Your task to perform on an android device: Go to sound settings Image 0: 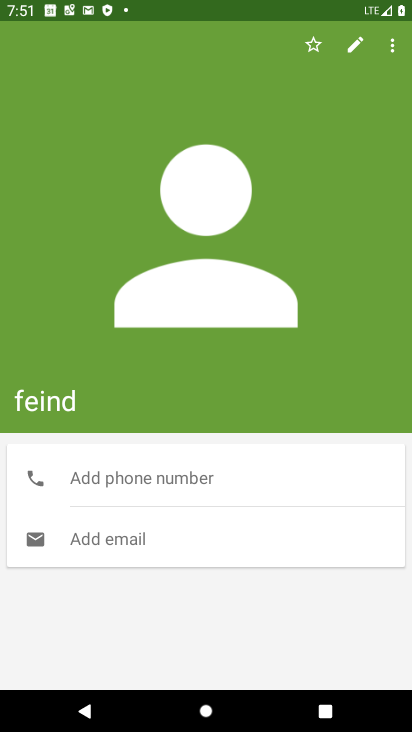
Step 0: press home button
Your task to perform on an android device: Go to sound settings Image 1: 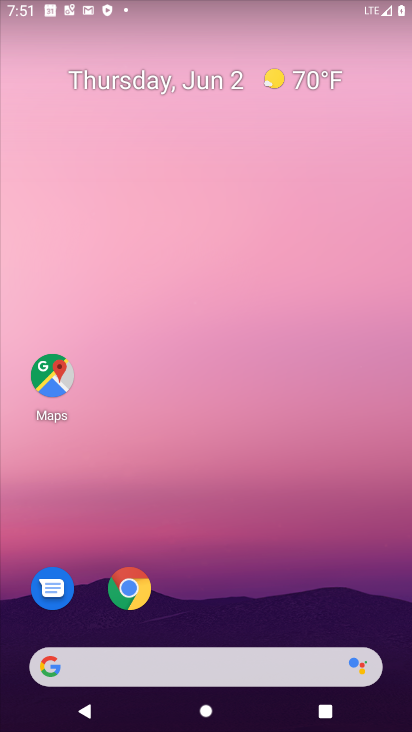
Step 1: drag from (151, 573) to (225, 0)
Your task to perform on an android device: Go to sound settings Image 2: 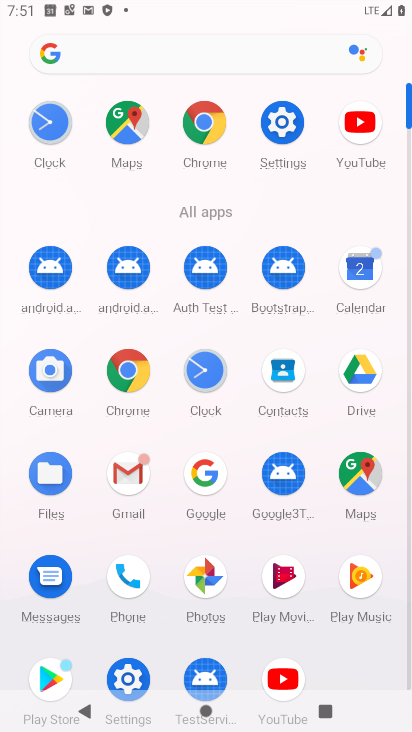
Step 2: click (283, 148)
Your task to perform on an android device: Go to sound settings Image 3: 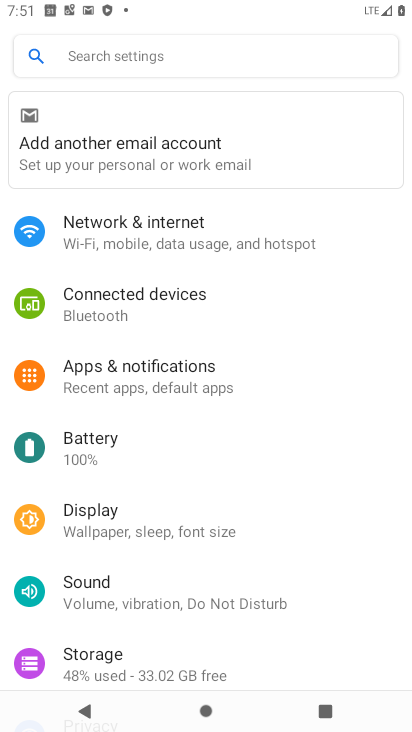
Step 3: click (128, 601)
Your task to perform on an android device: Go to sound settings Image 4: 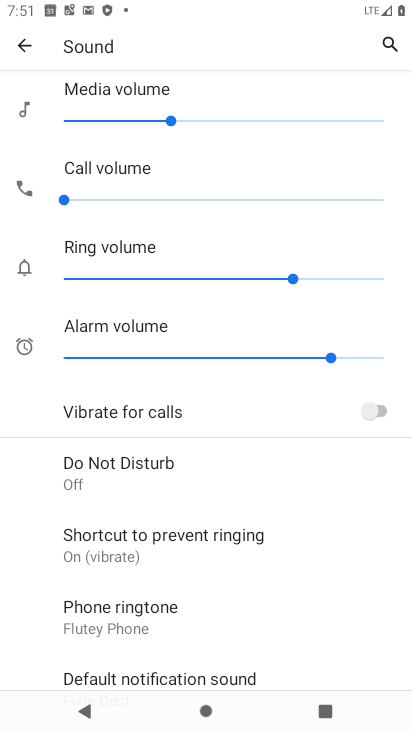
Step 4: task complete